Your task to perform on an android device: turn on wifi Image 0: 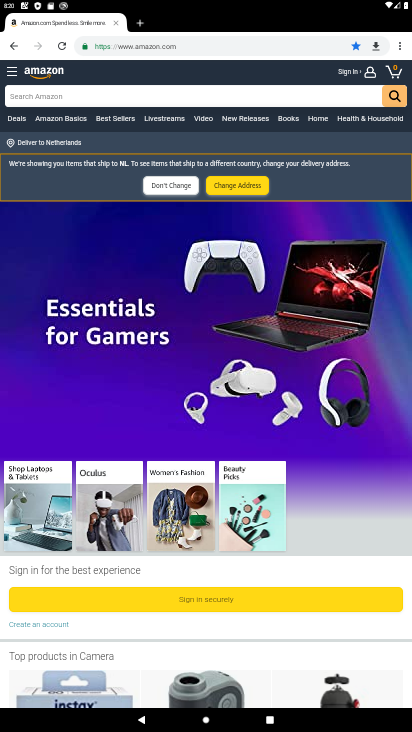
Step 0: drag from (304, 15) to (72, 701)
Your task to perform on an android device: turn on wifi Image 1: 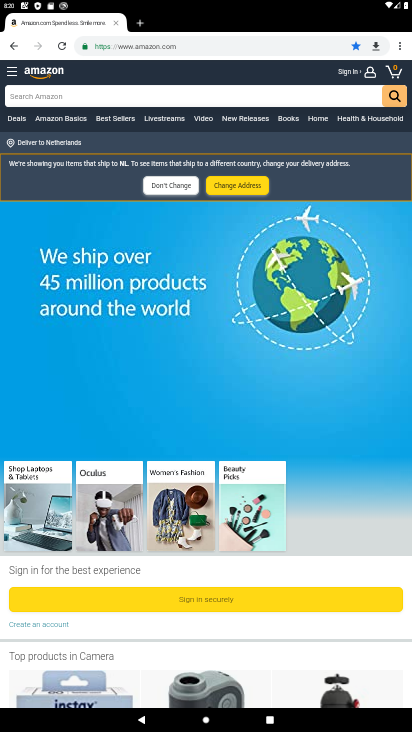
Step 1: task complete